Your task to perform on an android device: delete browsing data in the chrome app Image 0: 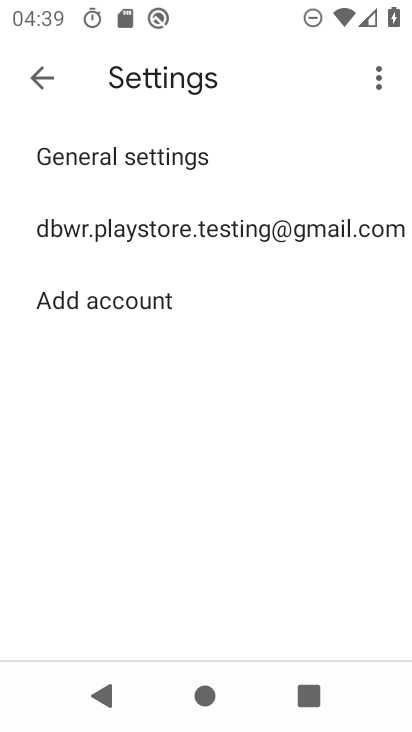
Step 0: drag from (164, 516) to (288, 1)
Your task to perform on an android device: delete browsing data in the chrome app Image 1: 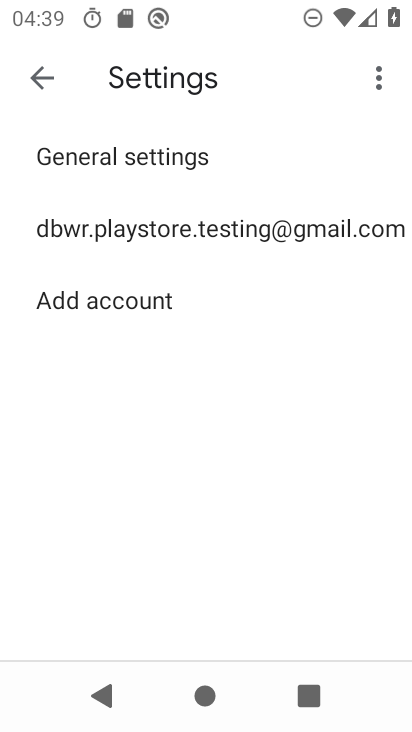
Step 1: press home button
Your task to perform on an android device: delete browsing data in the chrome app Image 2: 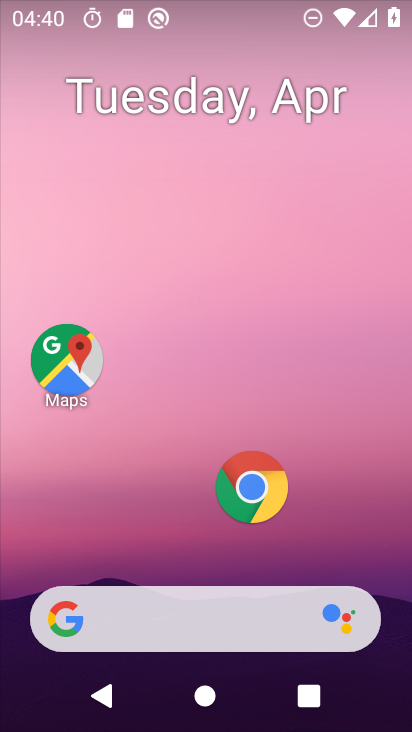
Step 2: drag from (186, 503) to (234, 82)
Your task to perform on an android device: delete browsing data in the chrome app Image 3: 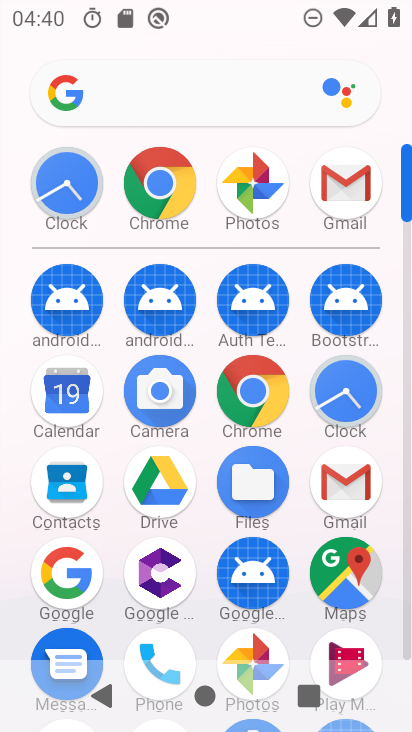
Step 3: click (164, 181)
Your task to perform on an android device: delete browsing data in the chrome app Image 4: 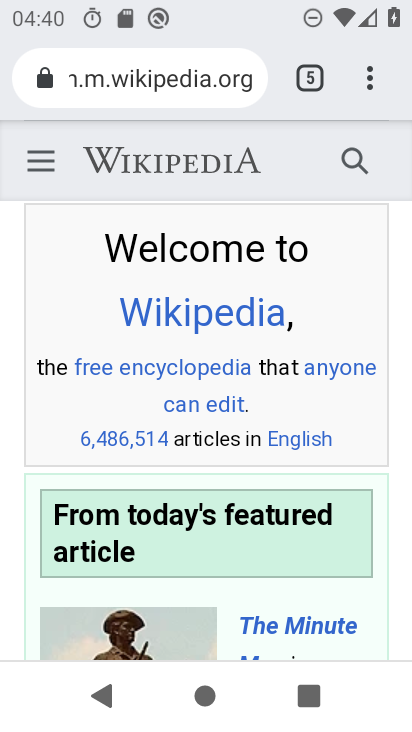
Step 4: drag from (367, 75) to (103, 521)
Your task to perform on an android device: delete browsing data in the chrome app Image 5: 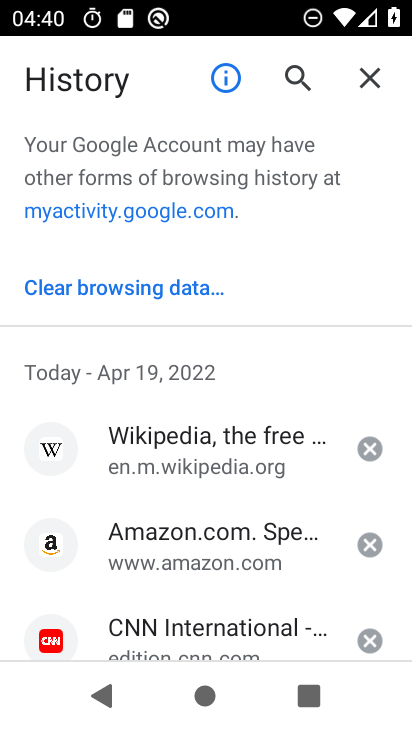
Step 5: click (131, 289)
Your task to perform on an android device: delete browsing data in the chrome app Image 6: 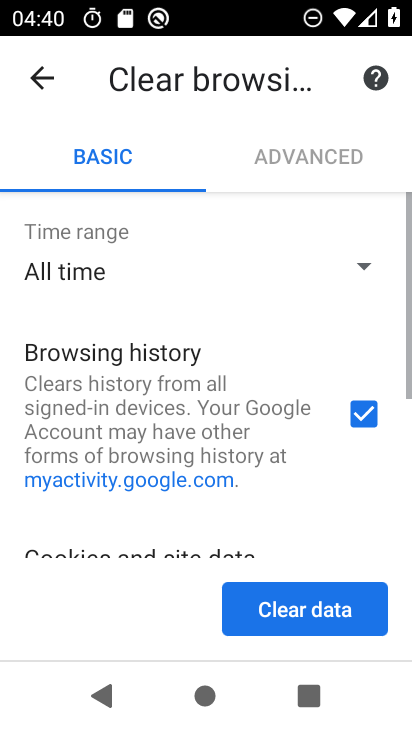
Step 6: drag from (156, 539) to (218, 314)
Your task to perform on an android device: delete browsing data in the chrome app Image 7: 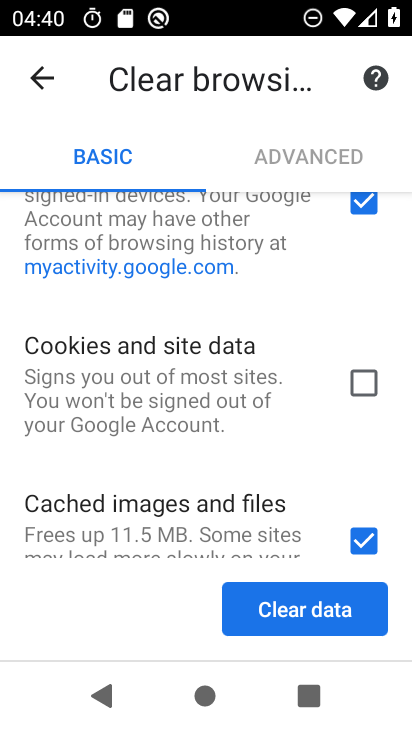
Step 7: drag from (205, 317) to (205, 527)
Your task to perform on an android device: delete browsing data in the chrome app Image 8: 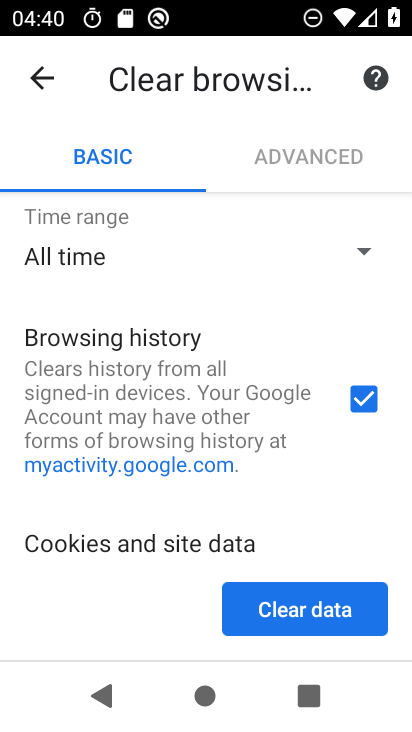
Step 8: click (293, 605)
Your task to perform on an android device: delete browsing data in the chrome app Image 9: 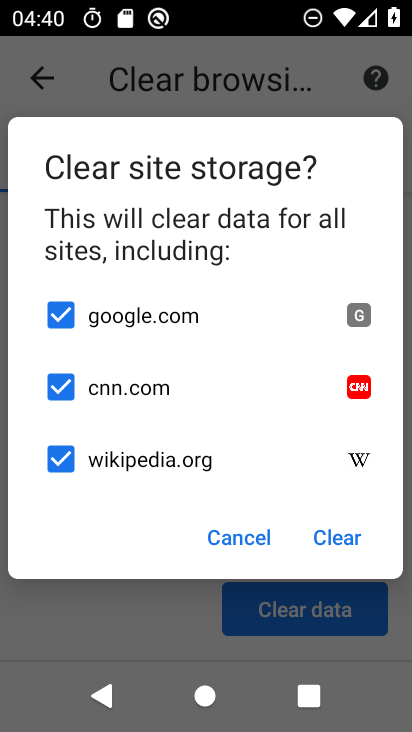
Step 9: click (334, 535)
Your task to perform on an android device: delete browsing data in the chrome app Image 10: 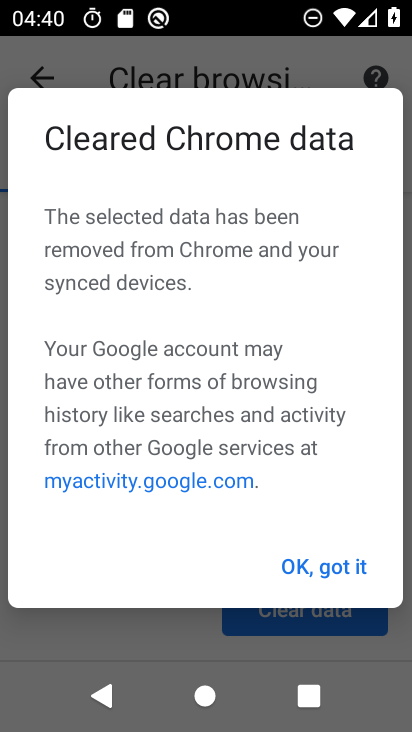
Step 10: click (294, 569)
Your task to perform on an android device: delete browsing data in the chrome app Image 11: 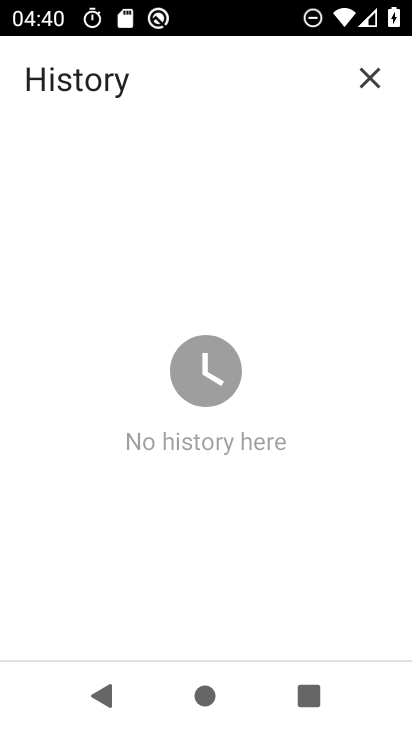
Step 11: task complete